Your task to perform on an android device: move a message to another label in the gmail app Image 0: 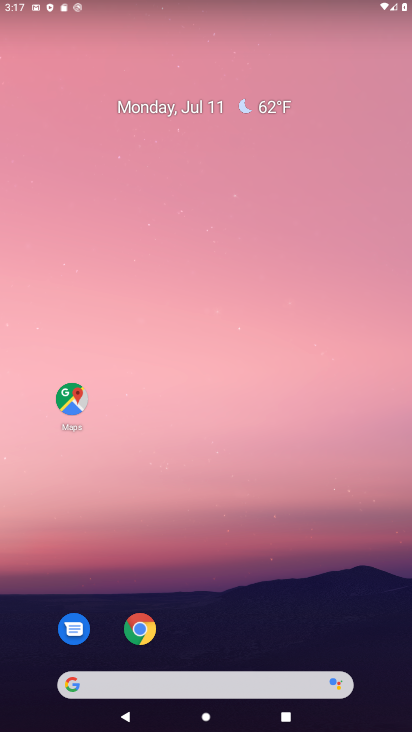
Step 0: click (258, 225)
Your task to perform on an android device: move a message to another label in the gmail app Image 1: 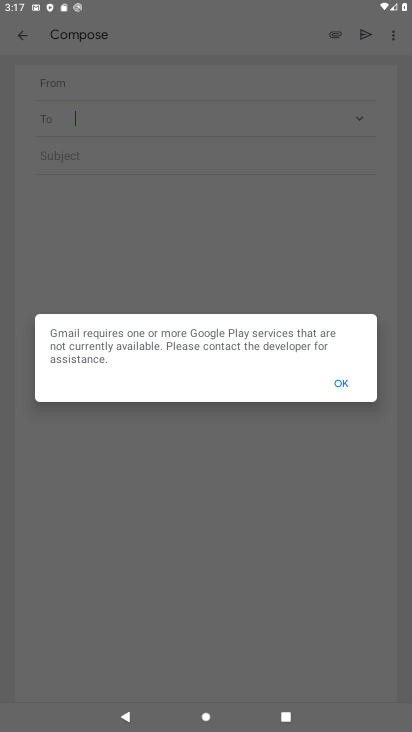
Step 1: press home button
Your task to perform on an android device: move a message to another label in the gmail app Image 2: 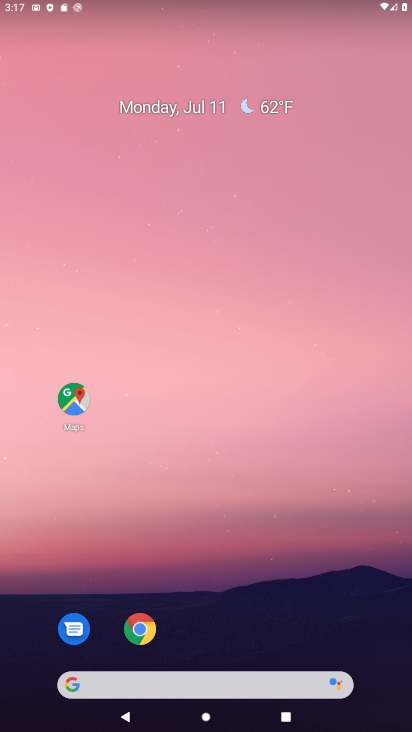
Step 2: drag from (218, 633) to (266, 242)
Your task to perform on an android device: move a message to another label in the gmail app Image 3: 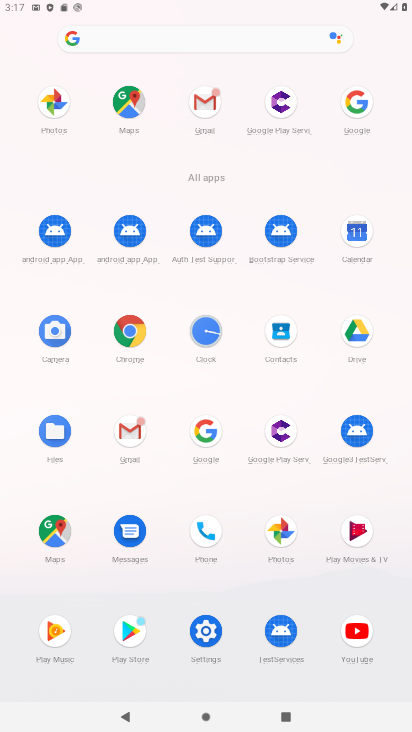
Step 3: click (199, 130)
Your task to perform on an android device: move a message to another label in the gmail app Image 4: 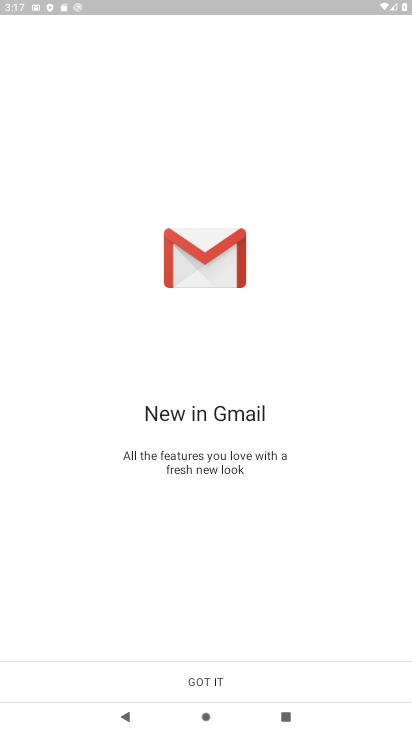
Step 4: click (257, 672)
Your task to perform on an android device: move a message to another label in the gmail app Image 5: 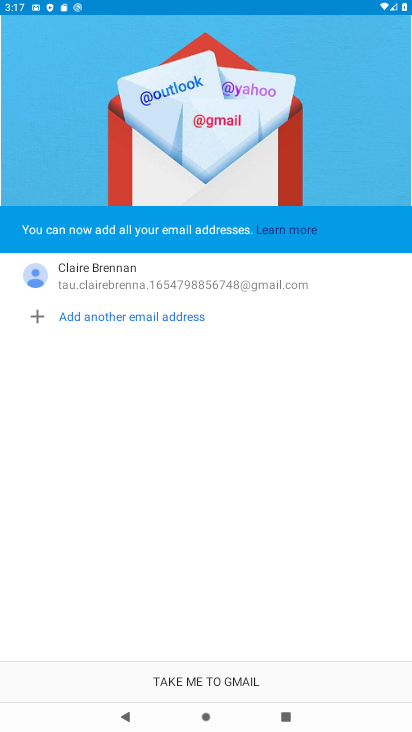
Step 5: click (265, 674)
Your task to perform on an android device: move a message to another label in the gmail app Image 6: 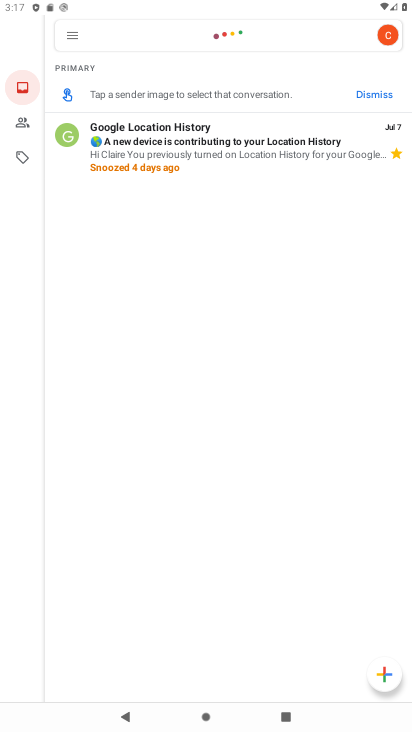
Step 6: click (197, 154)
Your task to perform on an android device: move a message to another label in the gmail app Image 7: 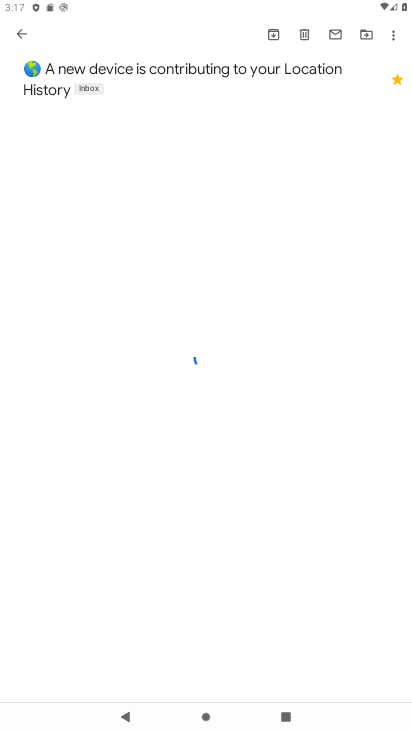
Step 7: click (390, 34)
Your task to perform on an android device: move a message to another label in the gmail app Image 8: 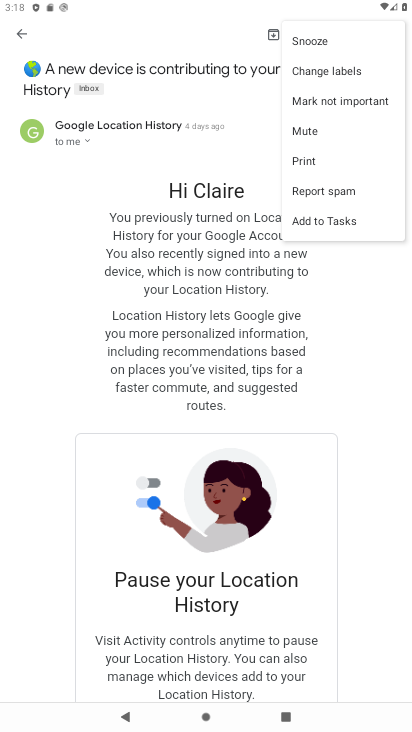
Step 8: click (334, 73)
Your task to perform on an android device: move a message to another label in the gmail app Image 9: 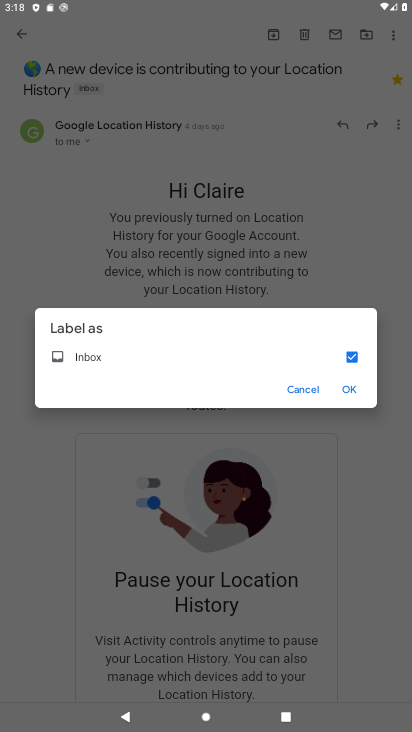
Step 9: click (349, 389)
Your task to perform on an android device: move a message to another label in the gmail app Image 10: 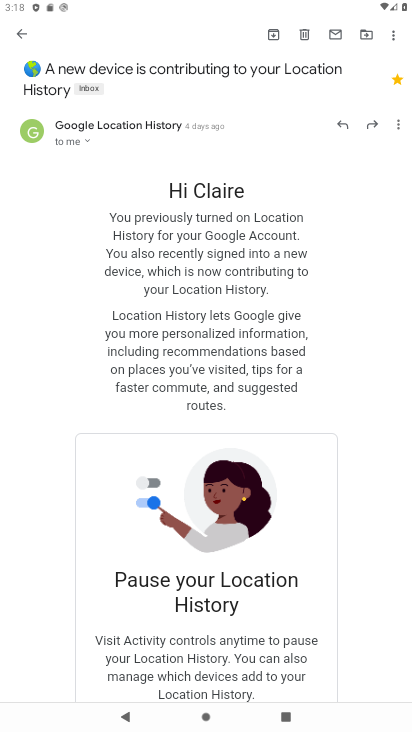
Step 10: task complete